Your task to perform on an android device: Go to settings Image 0: 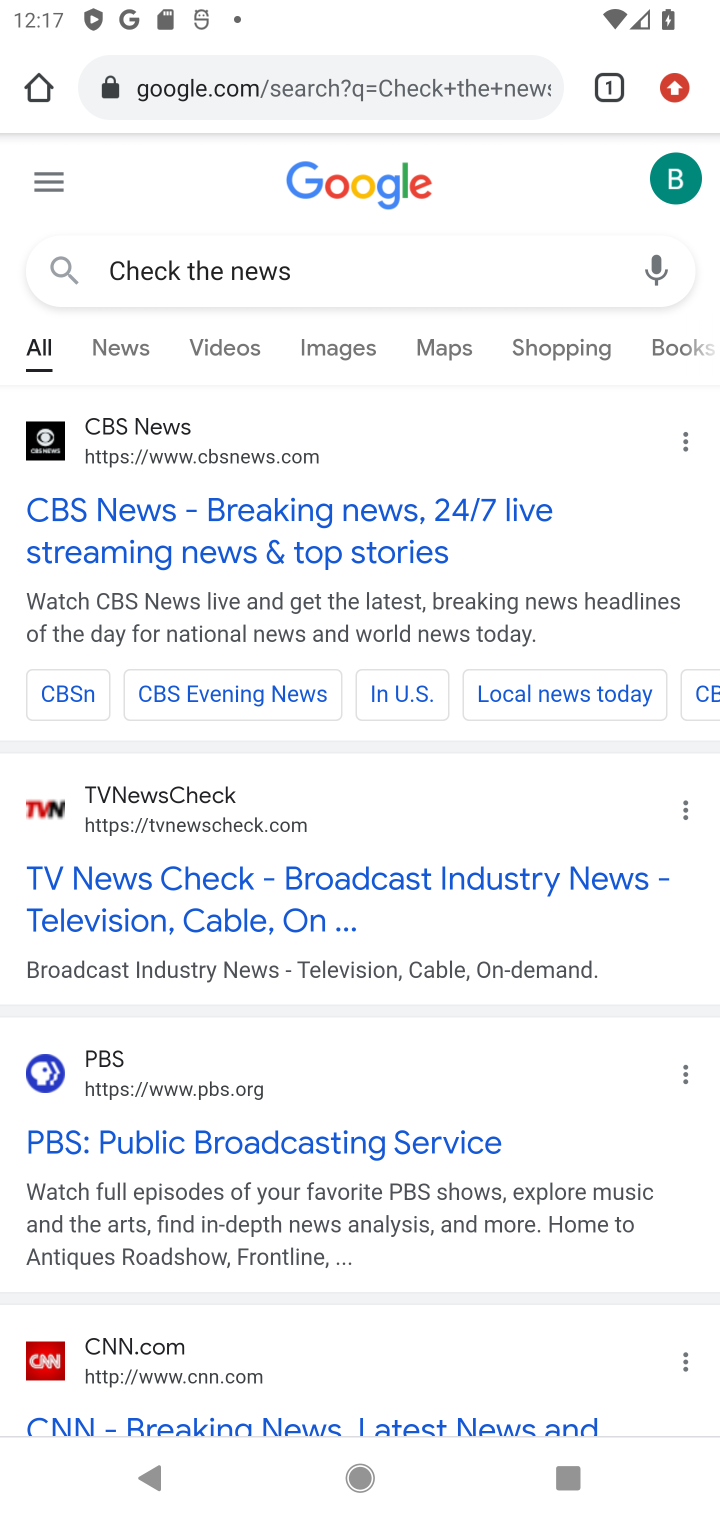
Step 0: press home button
Your task to perform on an android device: Go to settings Image 1: 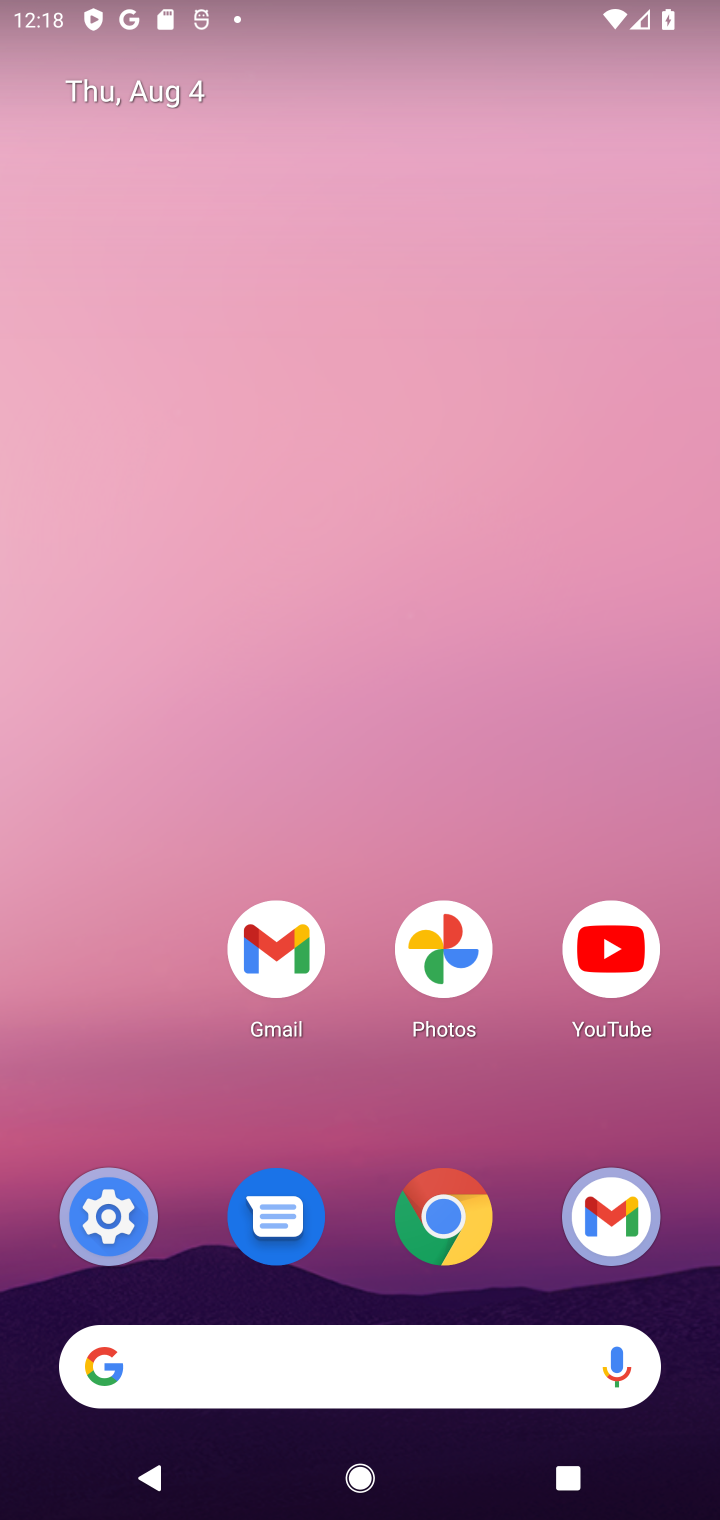
Step 1: drag from (165, 933) to (127, 248)
Your task to perform on an android device: Go to settings Image 2: 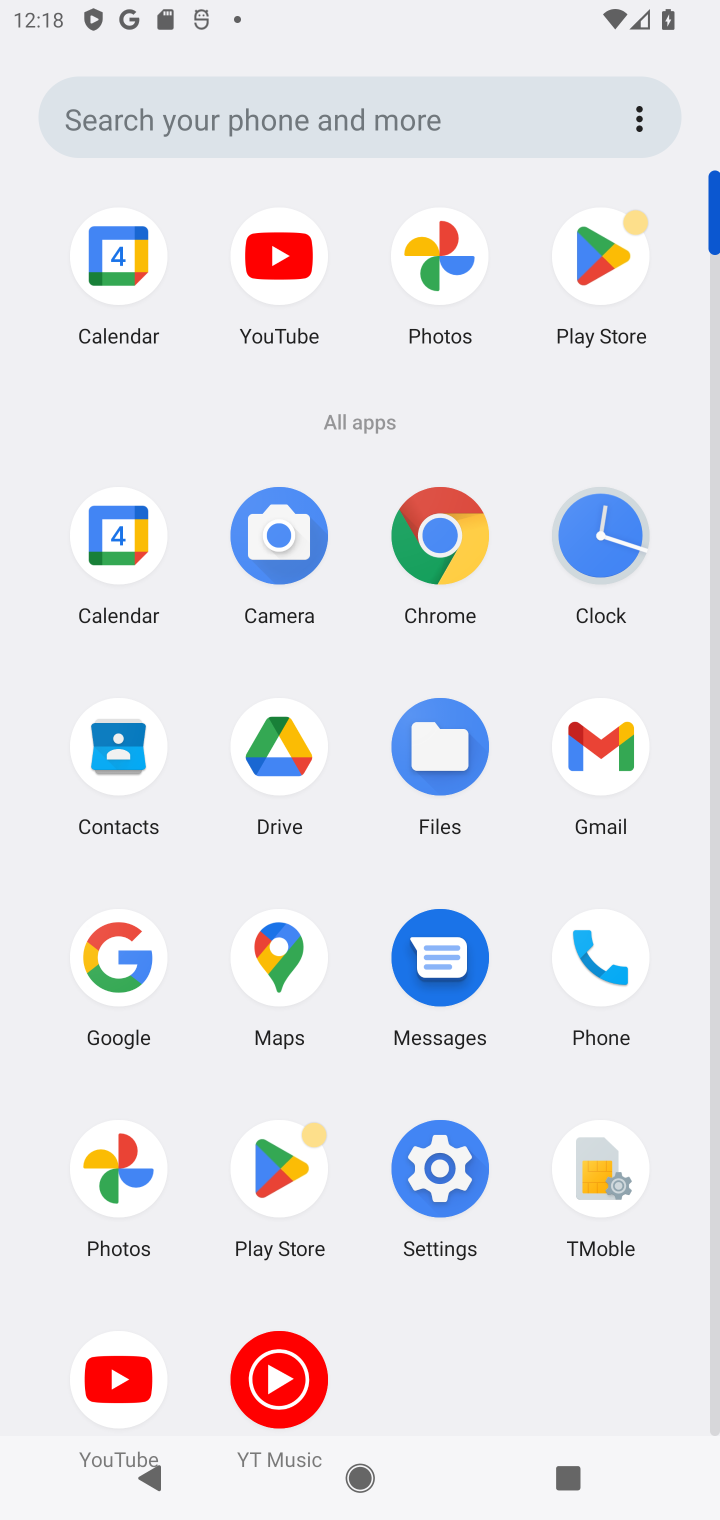
Step 2: click (435, 1180)
Your task to perform on an android device: Go to settings Image 3: 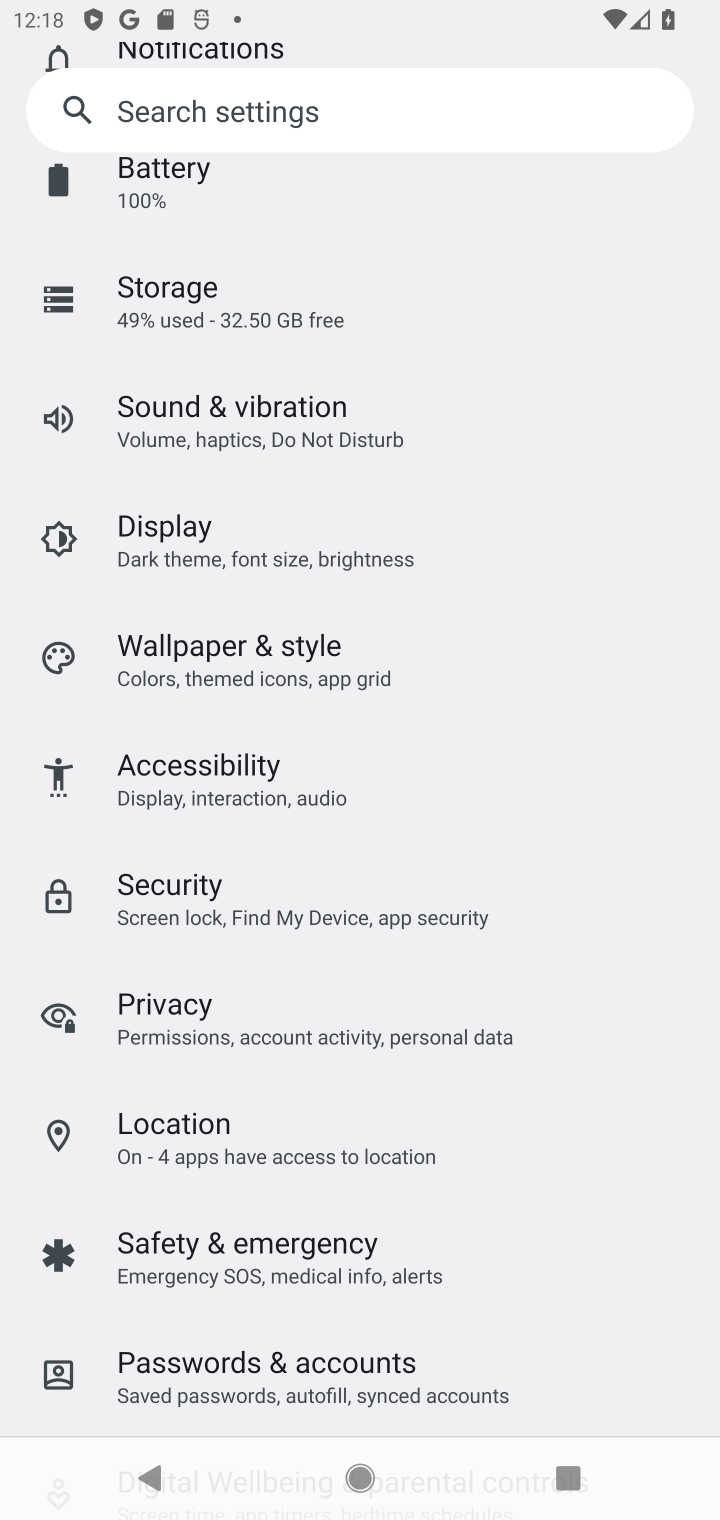
Step 3: task complete